Your task to perform on an android device: check battery use Image 0: 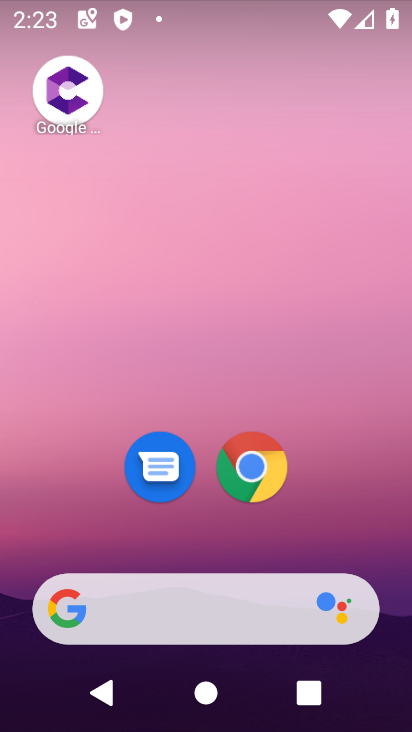
Step 0: drag from (191, 520) to (250, 104)
Your task to perform on an android device: check battery use Image 1: 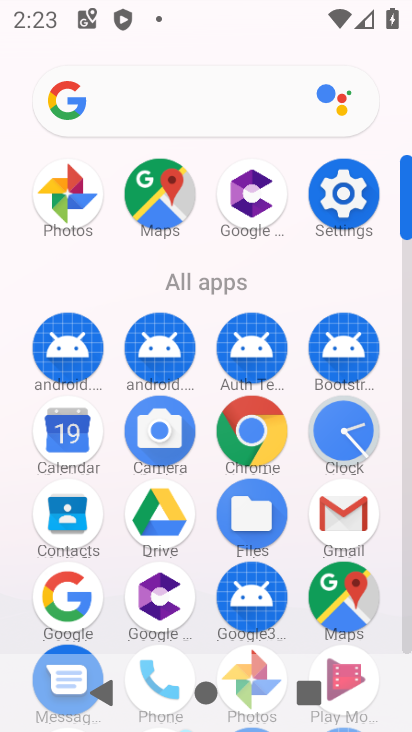
Step 1: click (350, 188)
Your task to perform on an android device: check battery use Image 2: 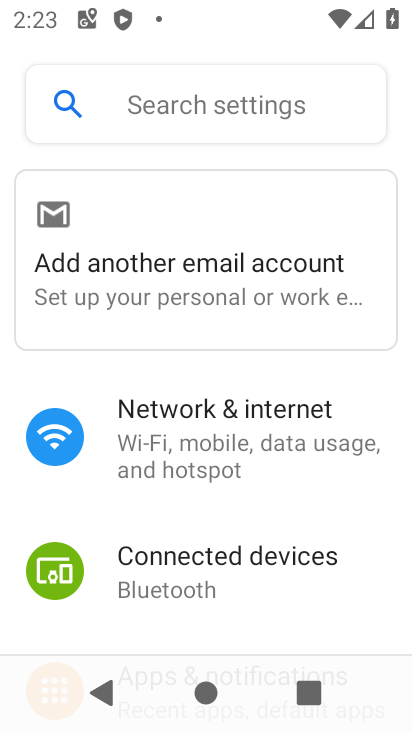
Step 2: drag from (216, 496) to (278, 95)
Your task to perform on an android device: check battery use Image 3: 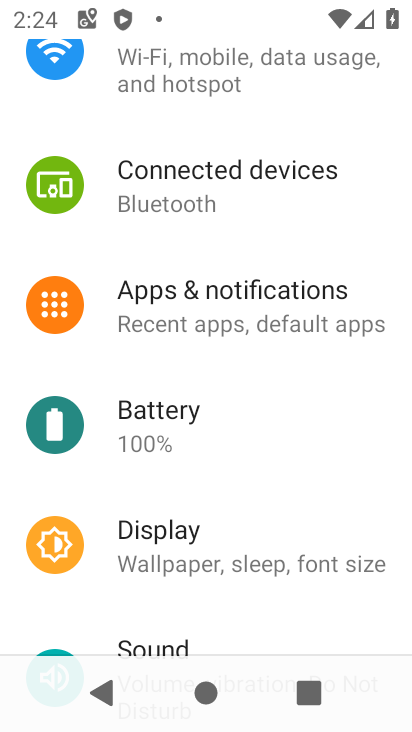
Step 3: click (205, 427)
Your task to perform on an android device: check battery use Image 4: 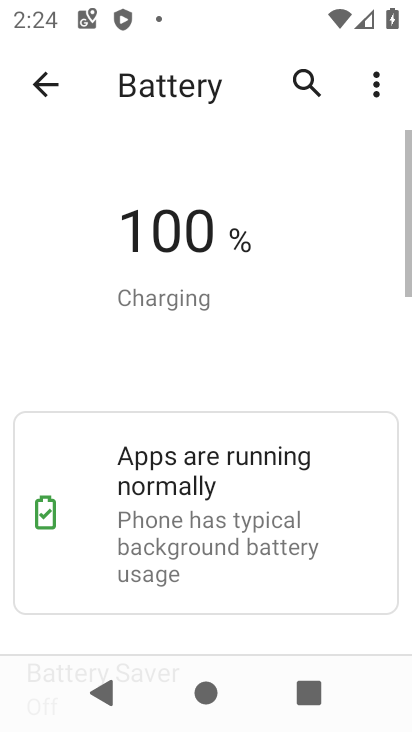
Step 4: drag from (222, 574) to (313, 71)
Your task to perform on an android device: check battery use Image 5: 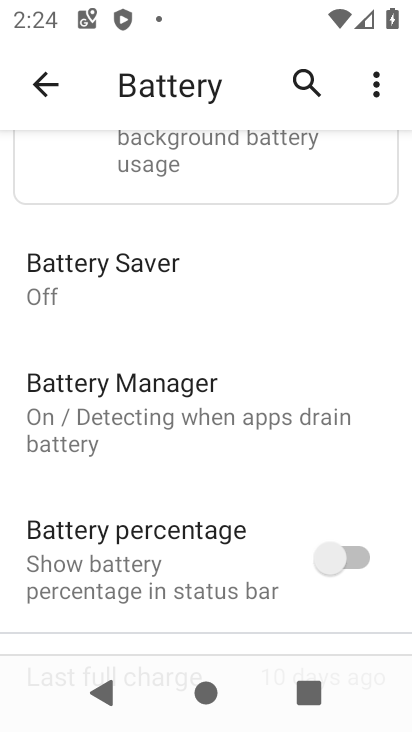
Step 5: click (378, 83)
Your task to perform on an android device: check battery use Image 6: 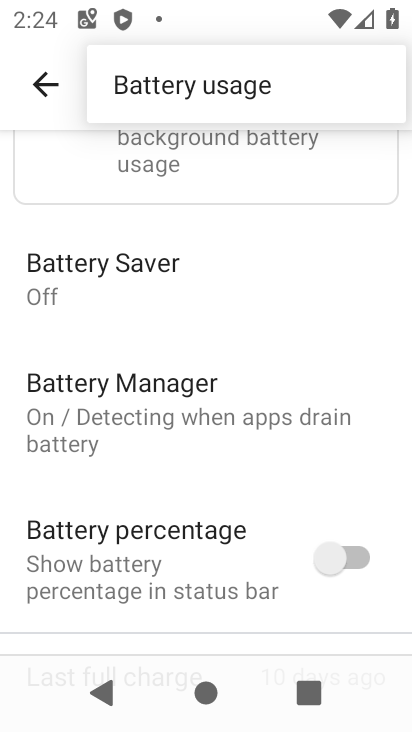
Step 6: click (294, 92)
Your task to perform on an android device: check battery use Image 7: 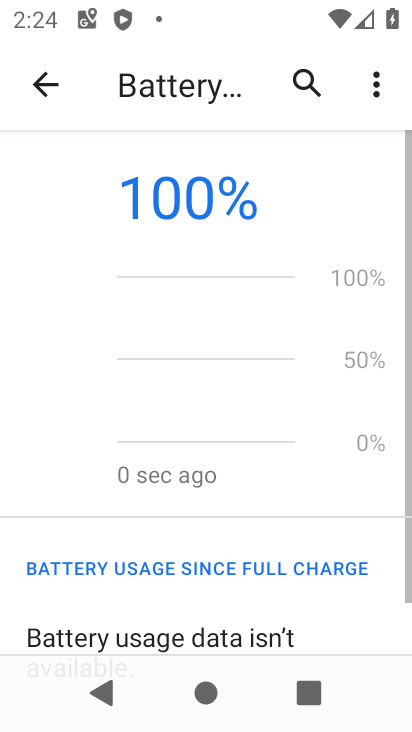
Step 7: task complete